Your task to perform on an android device: check storage Image 0: 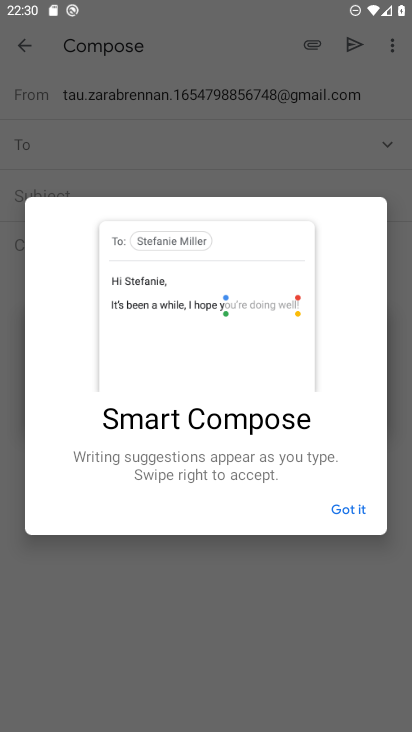
Step 0: press home button
Your task to perform on an android device: check storage Image 1: 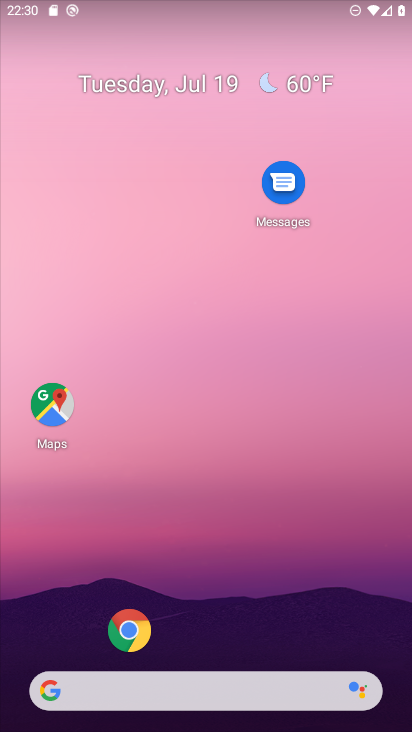
Step 1: drag from (38, 708) to (209, 302)
Your task to perform on an android device: check storage Image 2: 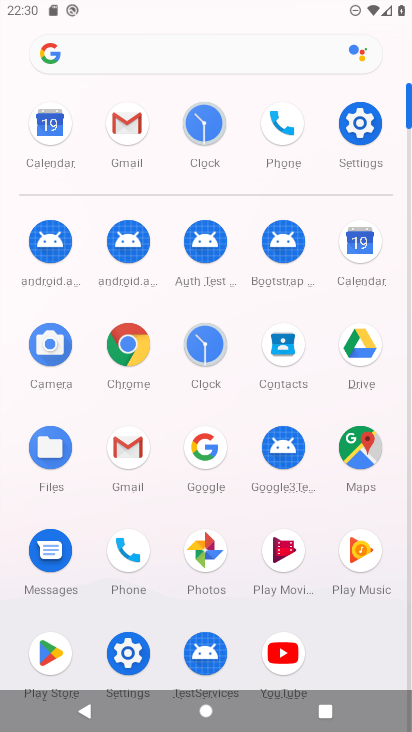
Step 2: click (130, 649)
Your task to perform on an android device: check storage Image 3: 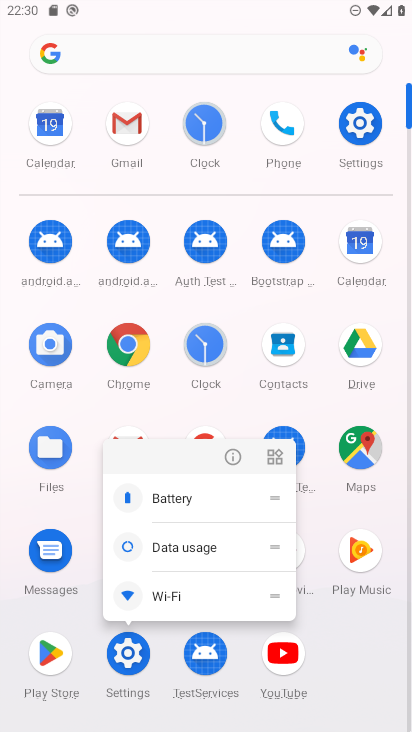
Step 3: click (132, 675)
Your task to perform on an android device: check storage Image 4: 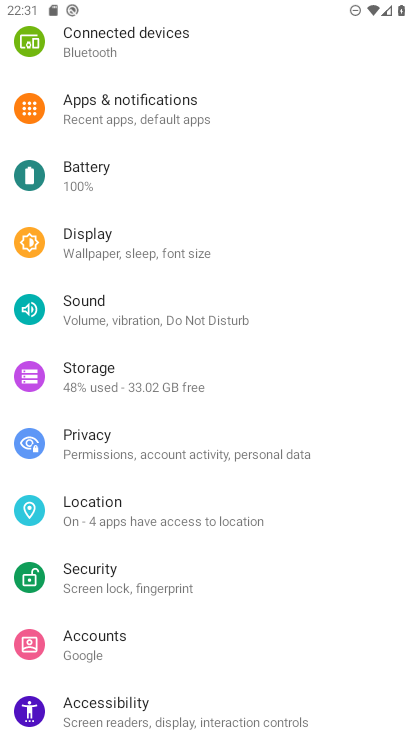
Step 4: click (90, 385)
Your task to perform on an android device: check storage Image 5: 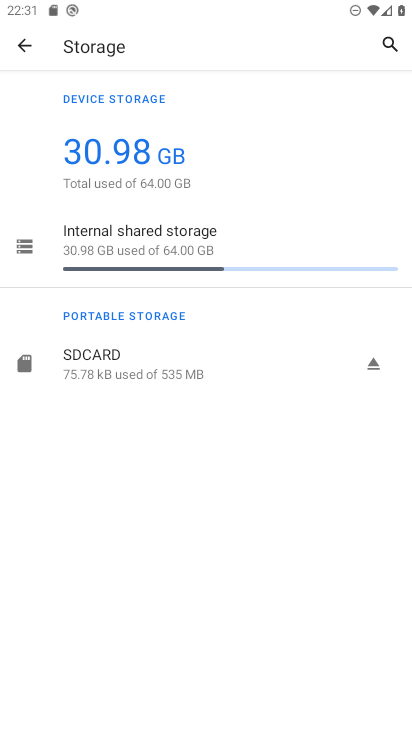
Step 5: task complete